Your task to perform on an android device: Check the weather Image 0: 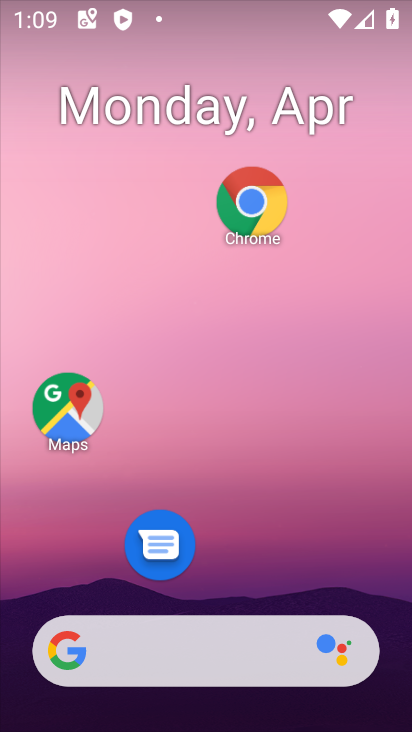
Step 0: click (163, 657)
Your task to perform on an android device: Check the weather Image 1: 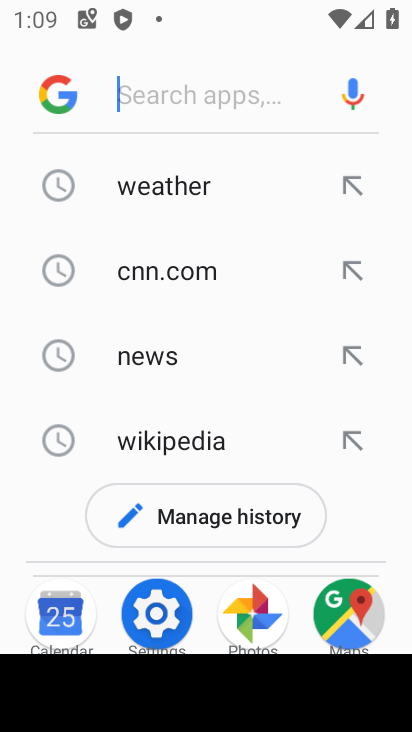
Step 1: click (57, 115)
Your task to perform on an android device: Check the weather Image 2: 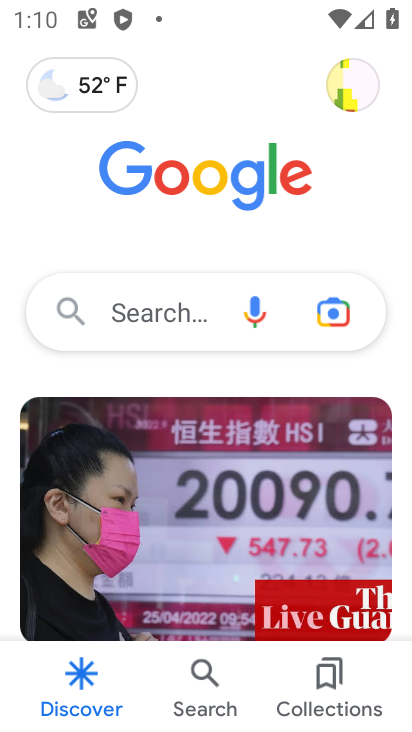
Step 2: click (64, 97)
Your task to perform on an android device: Check the weather Image 3: 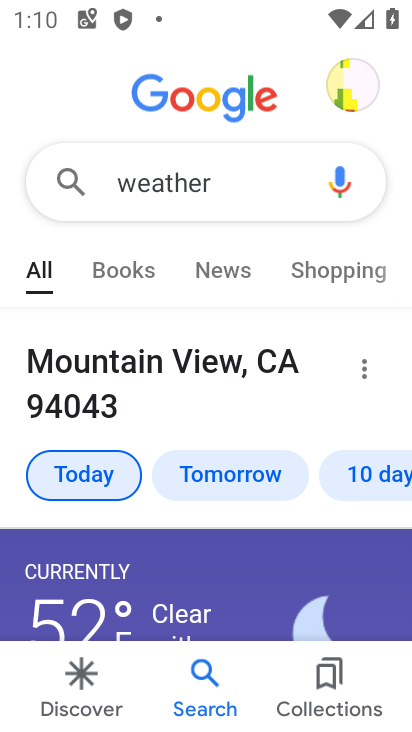
Step 3: task complete